Your task to perform on an android device: open app "Microsoft Excel" Image 0: 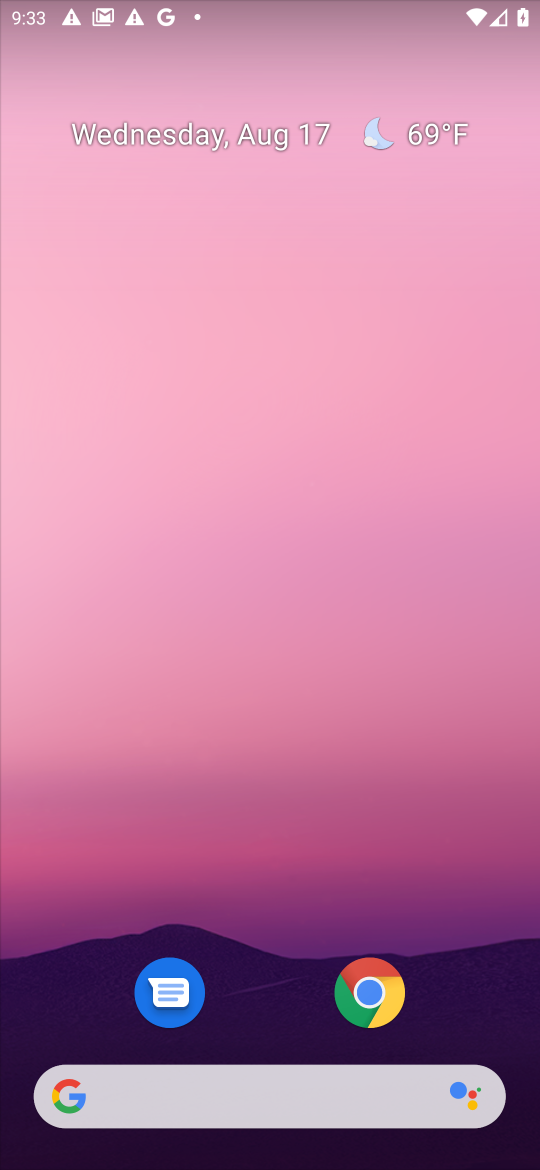
Step 0: drag from (494, 1010) to (287, 65)
Your task to perform on an android device: open app "Microsoft Excel" Image 1: 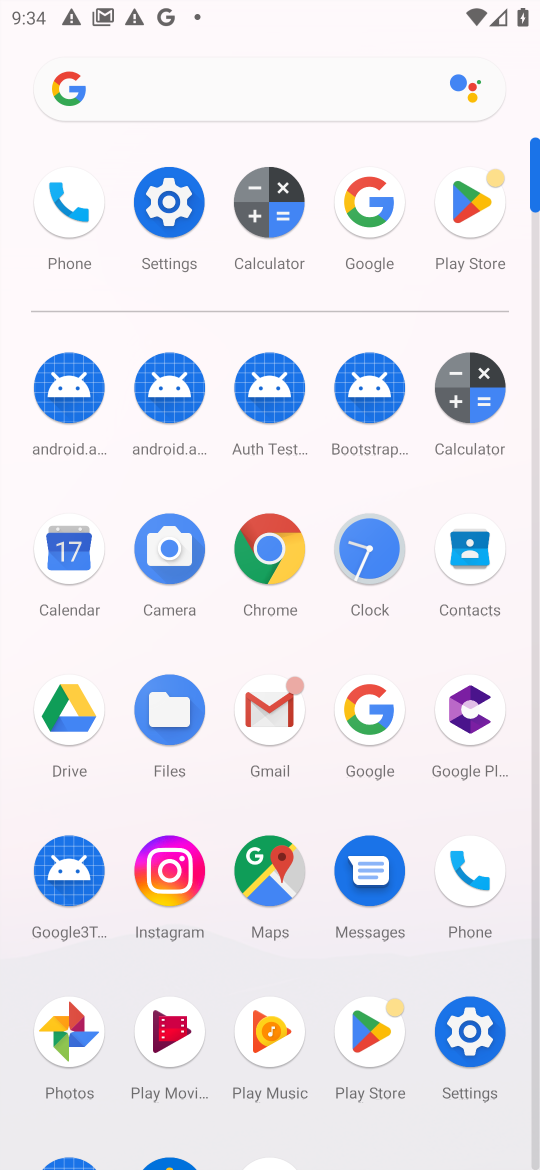
Step 1: click (376, 1046)
Your task to perform on an android device: open app "Microsoft Excel" Image 2: 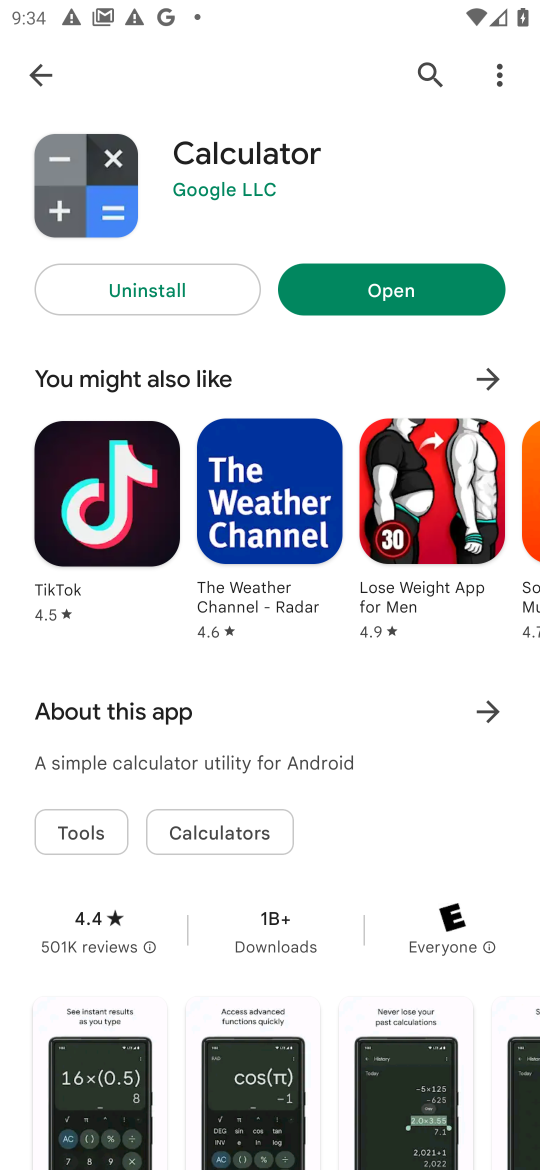
Step 2: press back button
Your task to perform on an android device: open app "Microsoft Excel" Image 3: 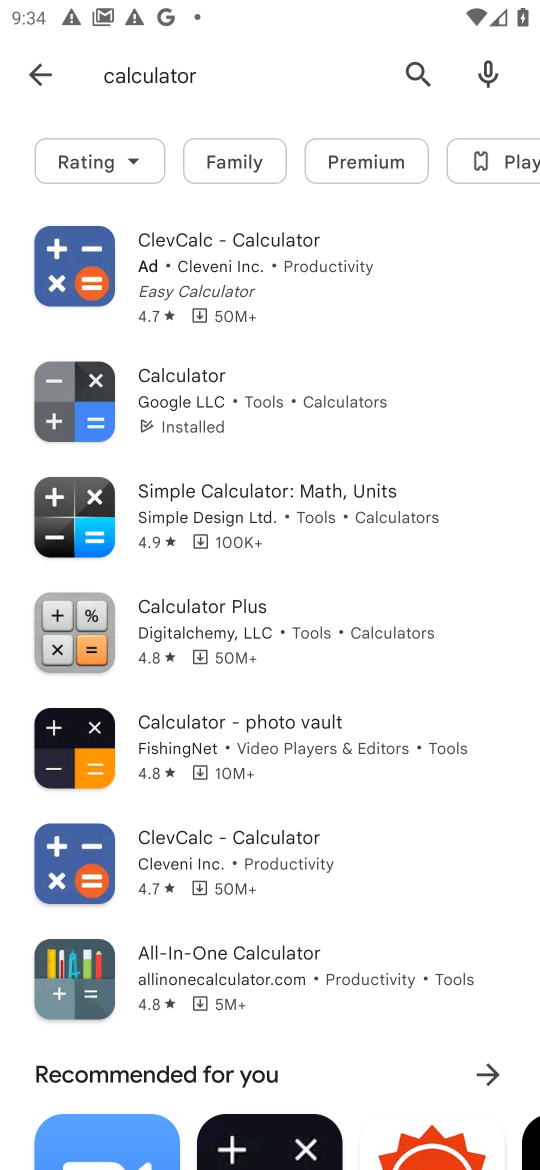
Step 3: press back button
Your task to perform on an android device: open app "Microsoft Excel" Image 4: 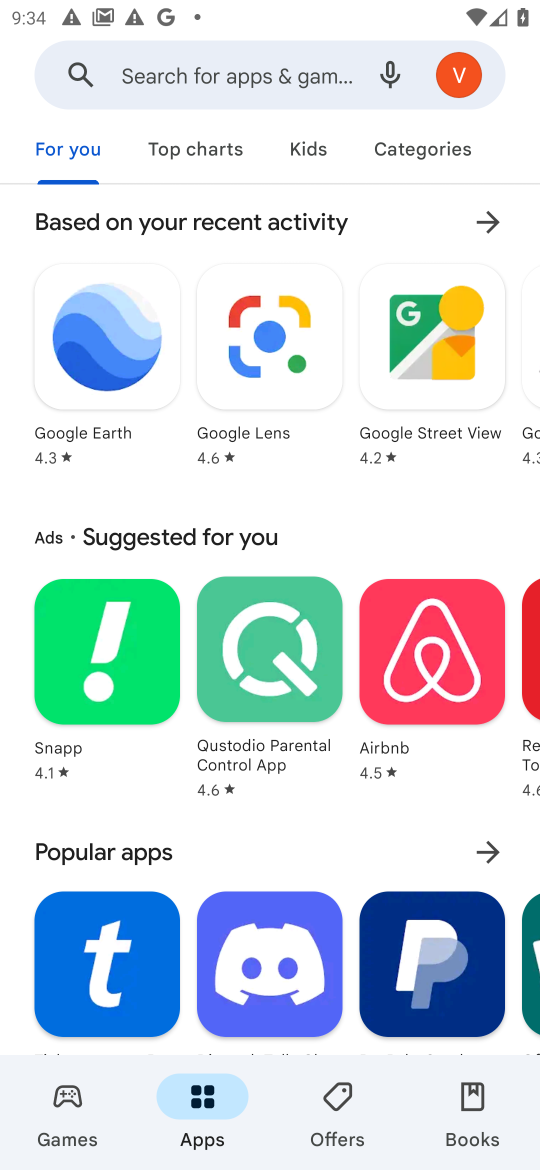
Step 4: click (193, 86)
Your task to perform on an android device: open app "Microsoft Excel" Image 5: 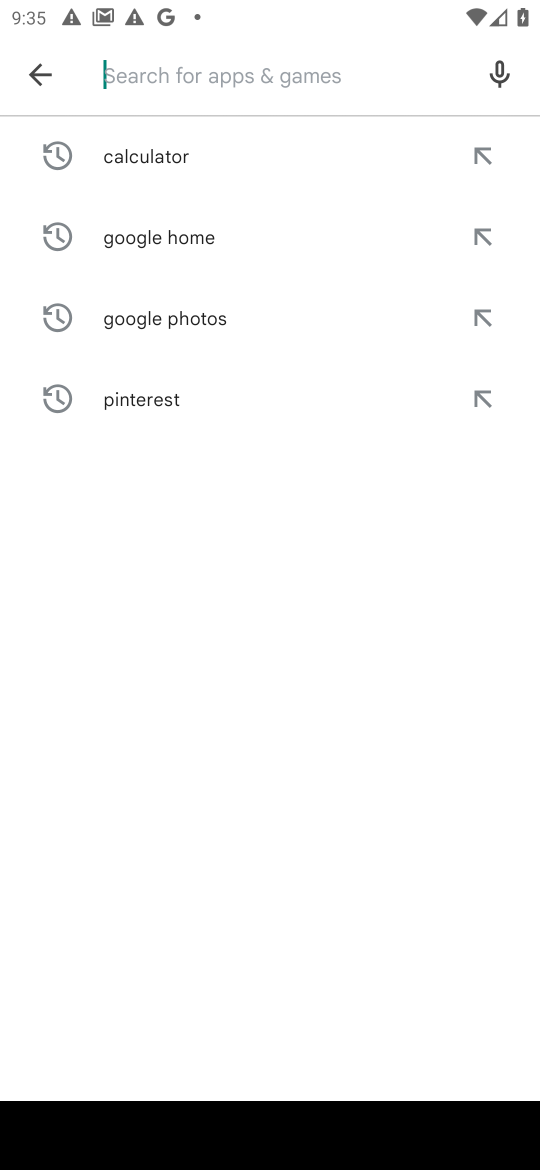
Step 5: type "Microsoft Excel"
Your task to perform on an android device: open app "Microsoft Excel" Image 6: 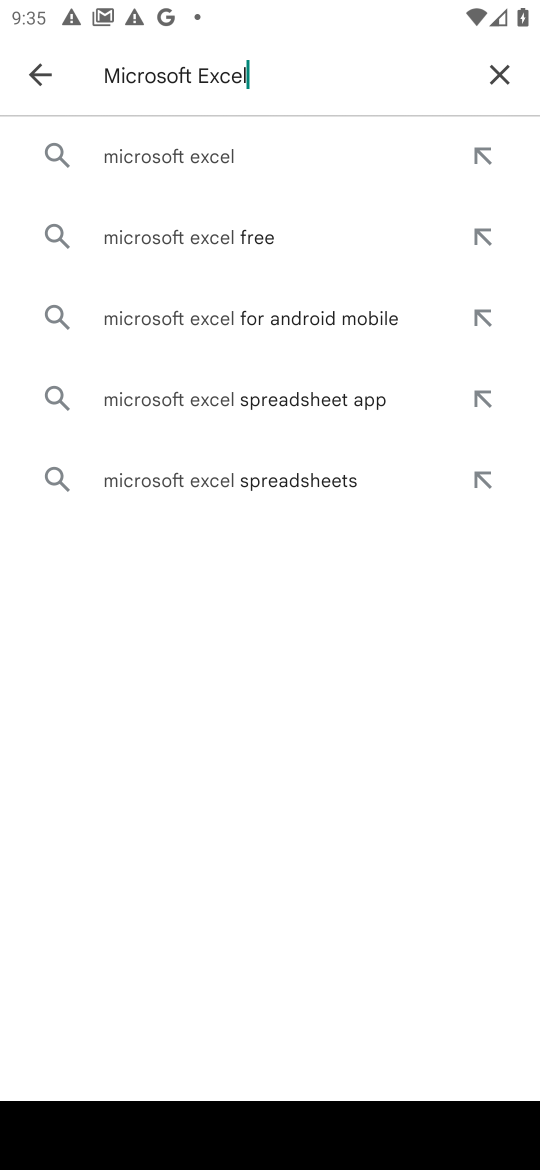
Step 6: click (190, 163)
Your task to perform on an android device: open app "Microsoft Excel" Image 7: 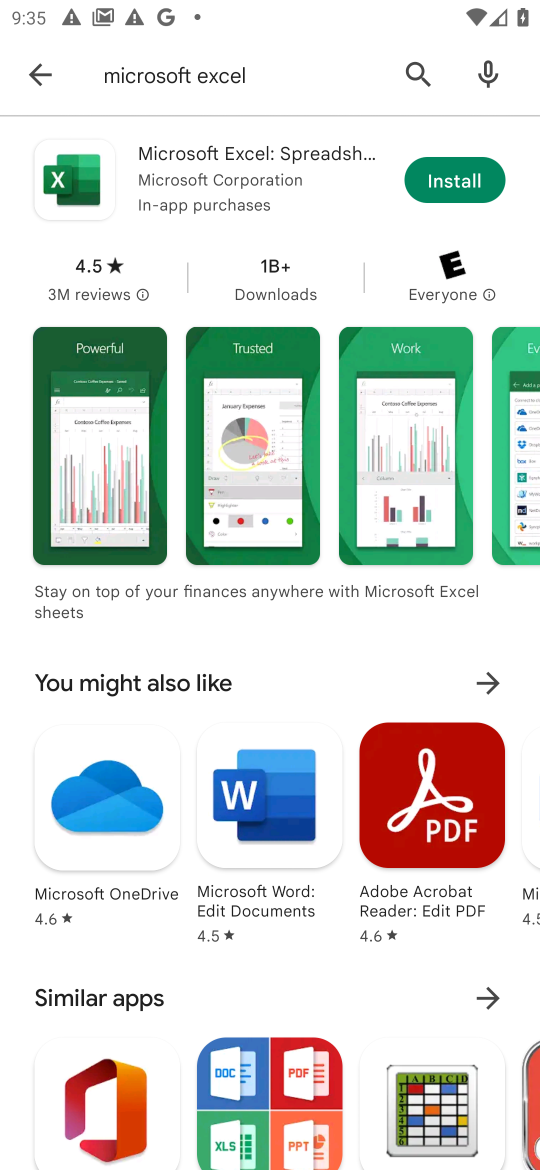
Step 7: task complete